Your task to perform on an android device: open app "Google Maps" Image 0: 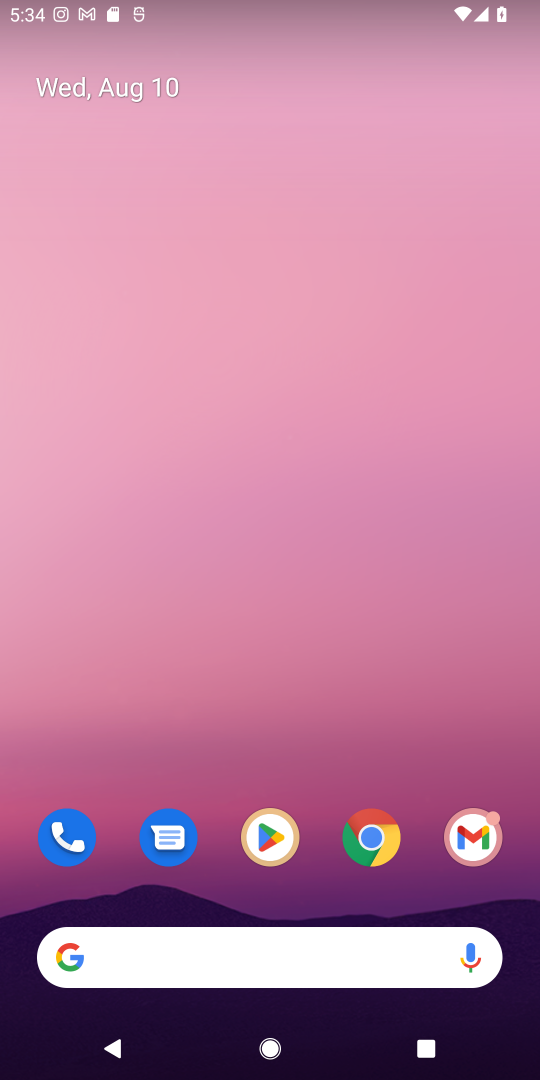
Step 0: click (270, 842)
Your task to perform on an android device: open app "Google Maps" Image 1: 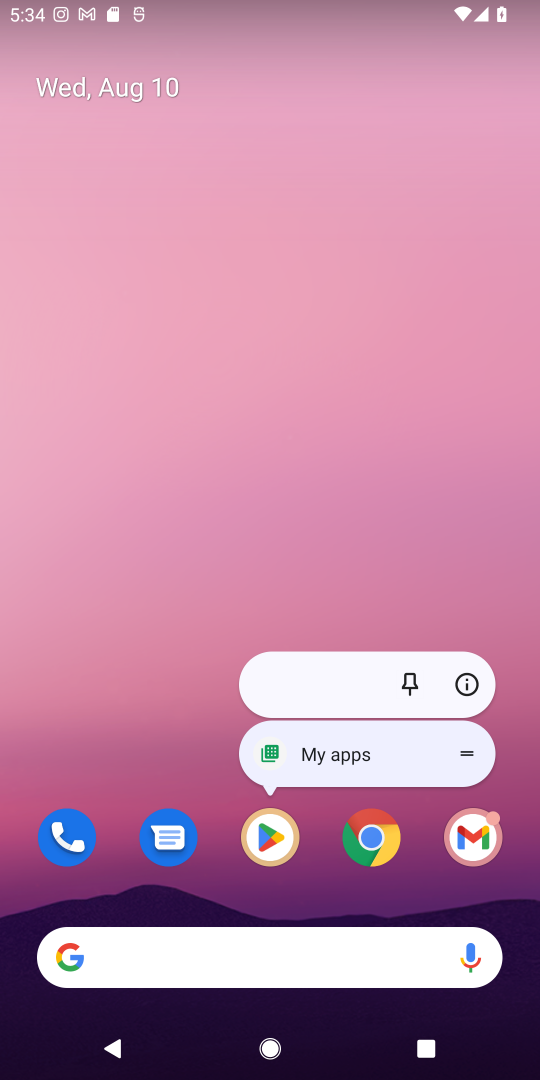
Step 1: click (270, 842)
Your task to perform on an android device: open app "Google Maps" Image 2: 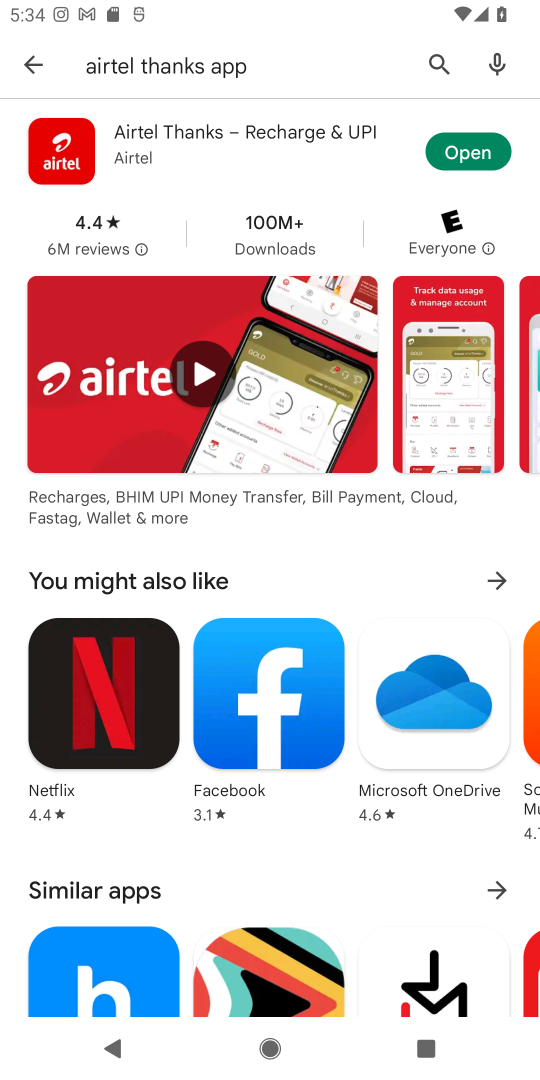
Step 2: click (436, 65)
Your task to perform on an android device: open app "Google Maps" Image 3: 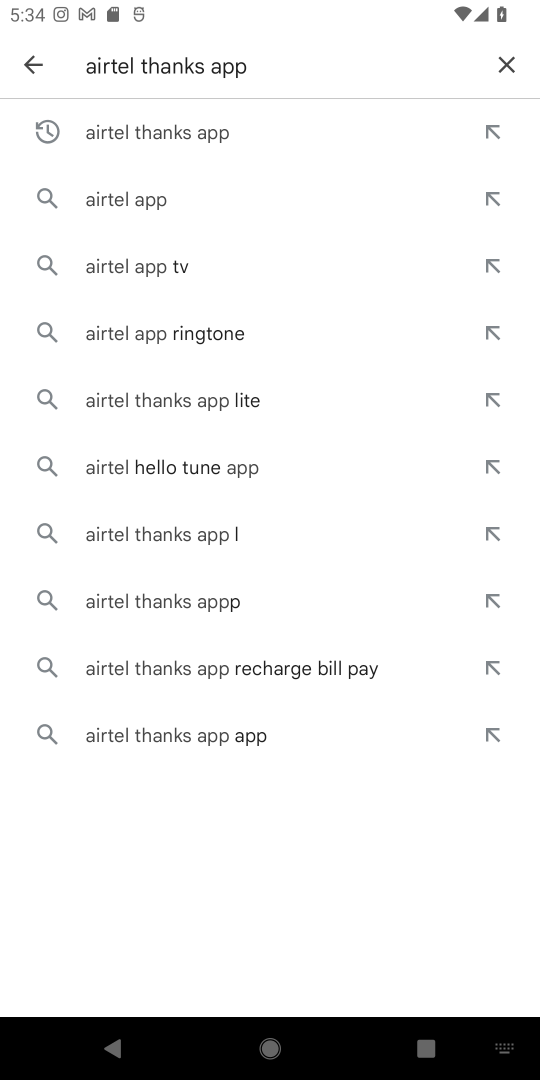
Step 3: click (503, 55)
Your task to perform on an android device: open app "Google Maps" Image 4: 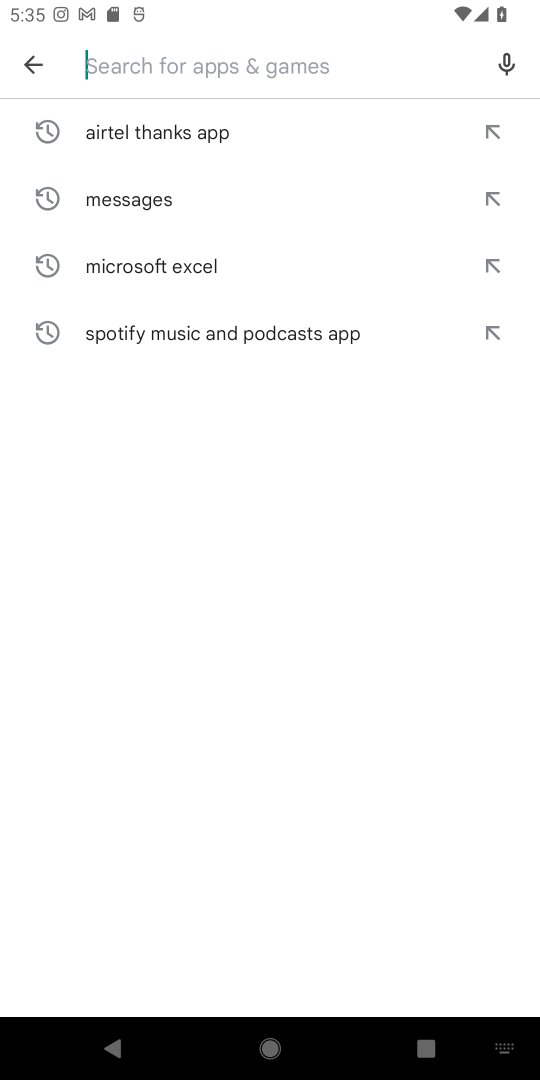
Step 4: type "Google Maps"
Your task to perform on an android device: open app "Google Maps" Image 5: 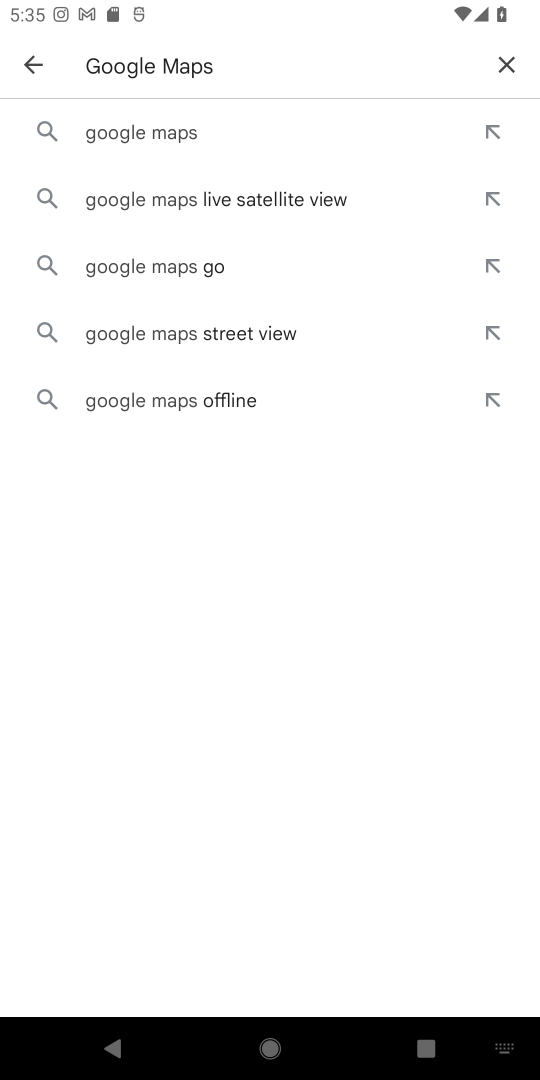
Step 5: click (161, 135)
Your task to perform on an android device: open app "Google Maps" Image 6: 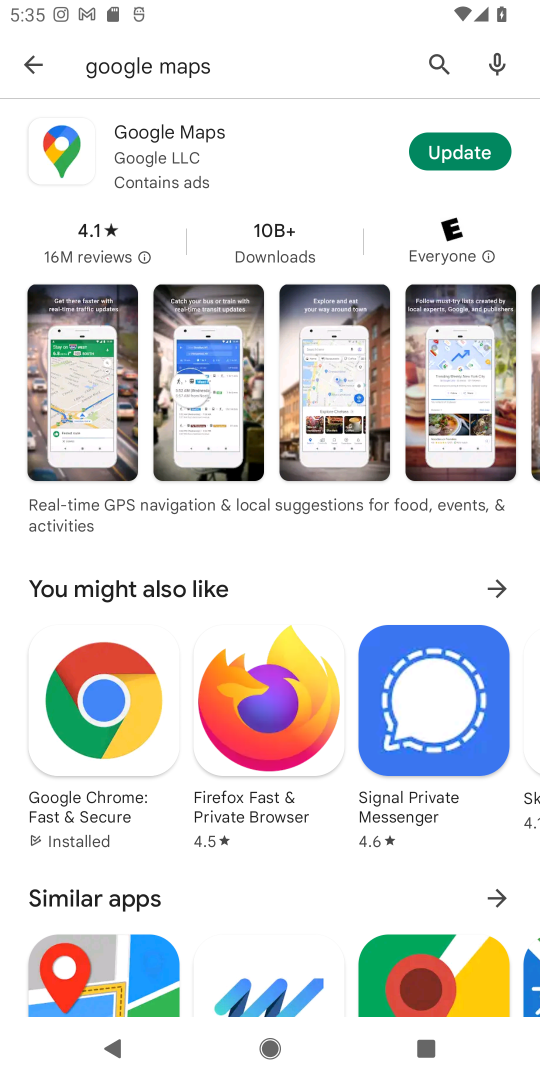
Step 6: click (153, 155)
Your task to perform on an android device: open app "Google Maps" Image 7: 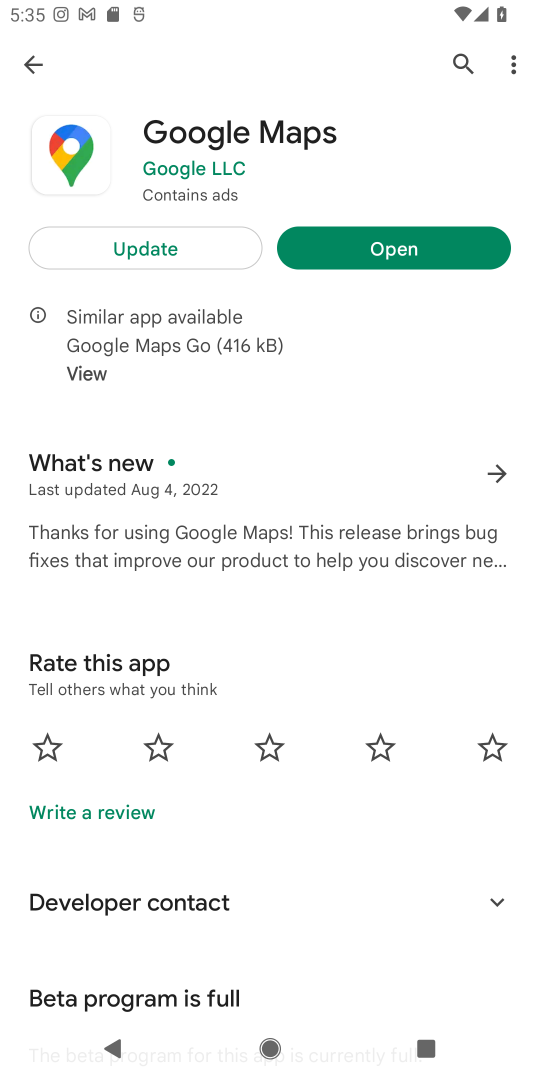
Step 7: click (399, 255)
Your task to perform on an android device: open app "Google Maps" Image 8: 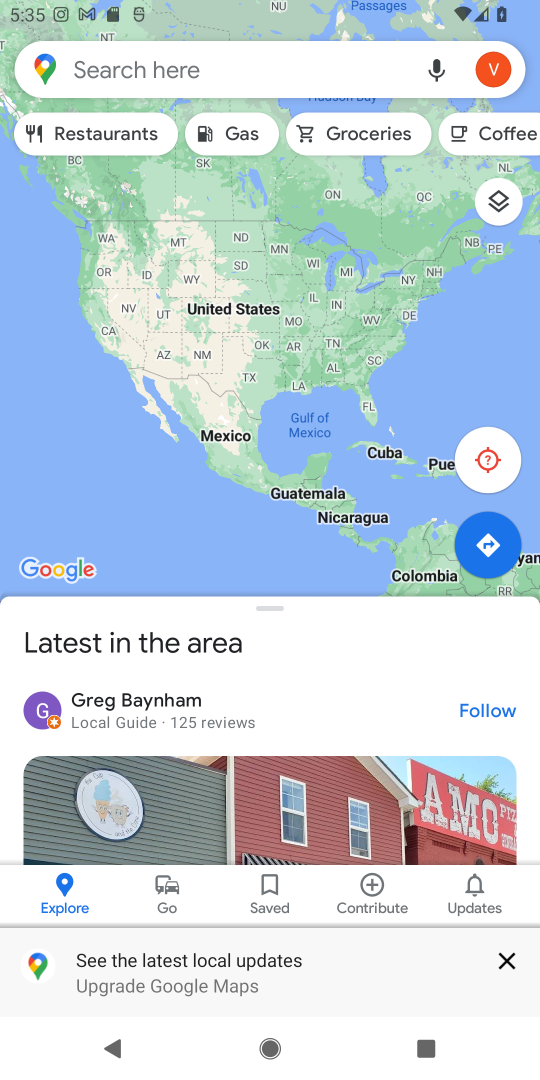
Step 8: task complete